Your task to perform on an android device: change your default location settings in chrome Image 0: 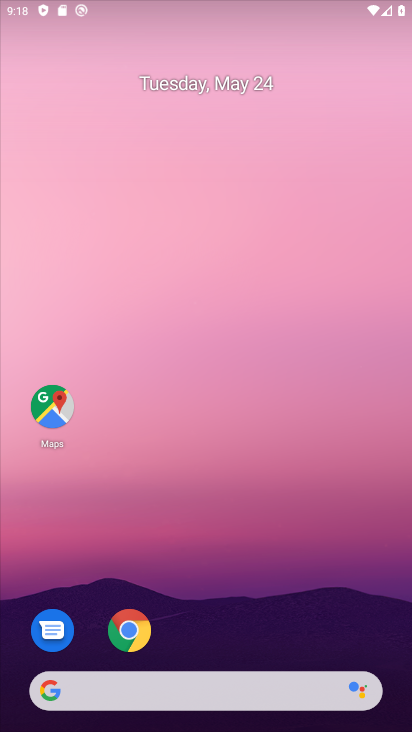
Step 0: press home button
Your task to perform on an android device: change your default location settings in chrome Image 1: 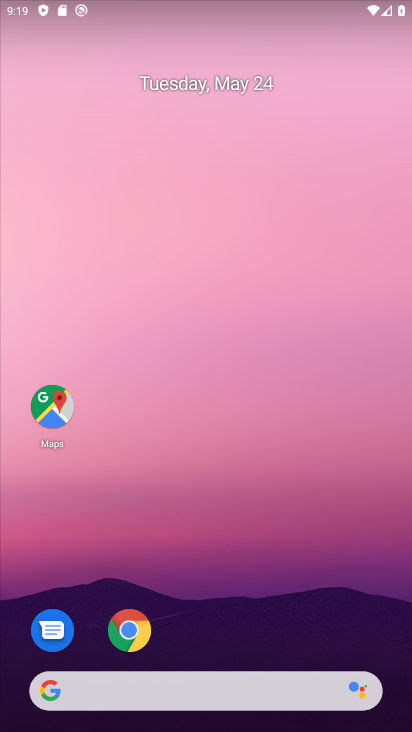
Step 1: click (127, 627)
Your task to perform on an android device: change your default location settings in chrome Image 2: 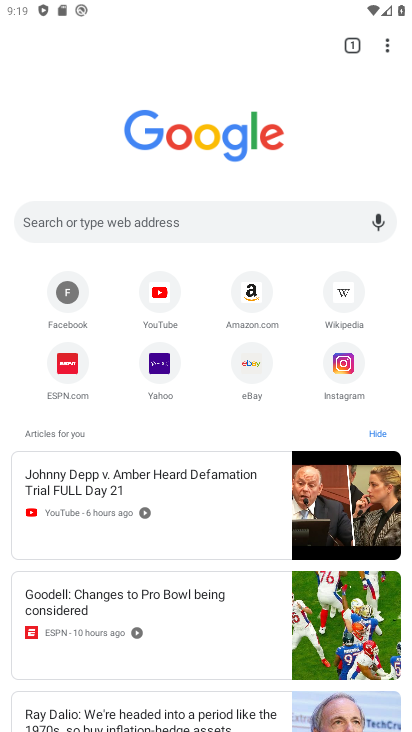
Step 2: click (387, 45)
Your task to perform on an android device: change your default location settings in chrome Image 3: 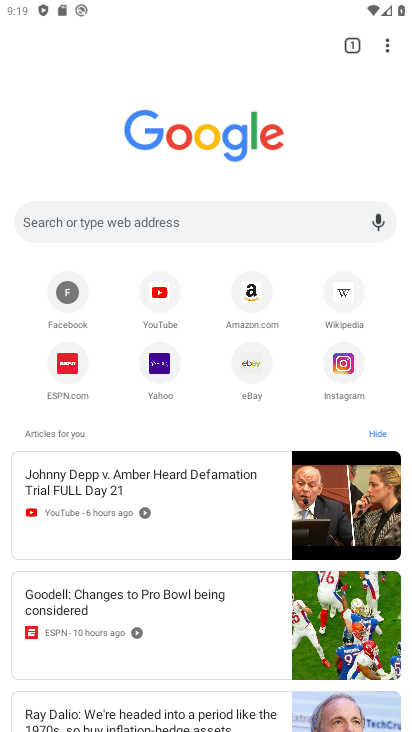
Step 3: click (387, 43)
Your task to perform on an android device: change your default location settings in chrome Image 4: 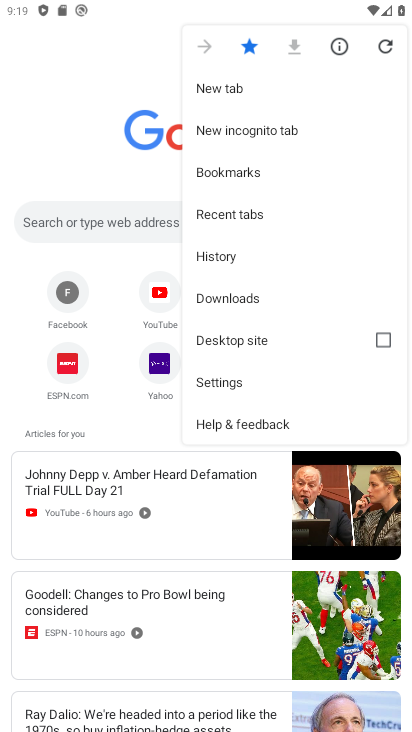
Step 4: click (247, 380)
Your task to perform on an android device: change your default location settings in chrome Image 5: 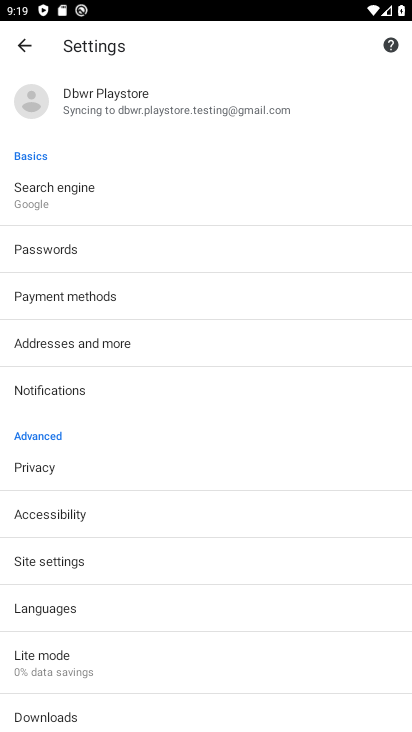
Step 5: click (95, 565)
Your task to perform on an android device: change your default location settings in chrome Image 6: 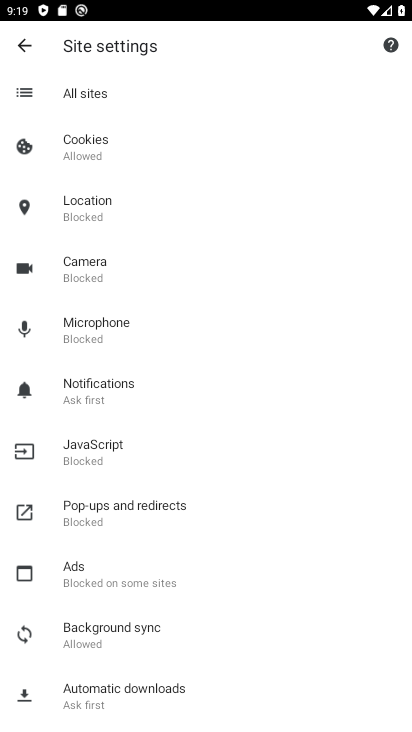
Step 6: click (119, 205)
Your task to perform on an android device: change your default location settings in chrome Image 7: 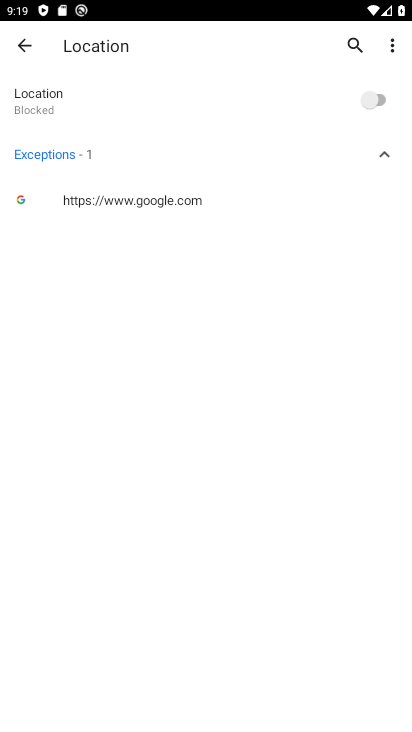
Step 7: click (382, 102)
Your task to perform on an android device: change your default location settings in chrome Image 8: 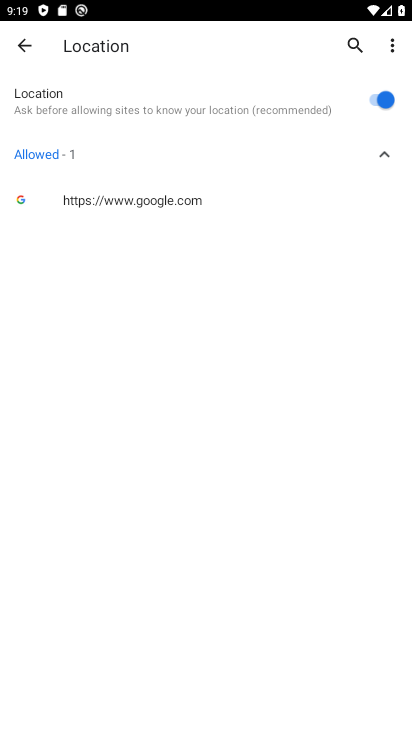
Step 8: task complete